Your task to perform on an android device: Open Google Maps Image 0: 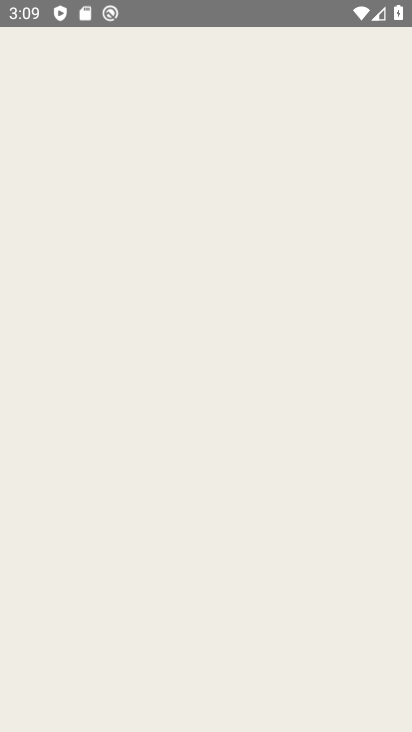
Step 0: press home button
Your task to perform on an android device: Open Google Maps Image 1: 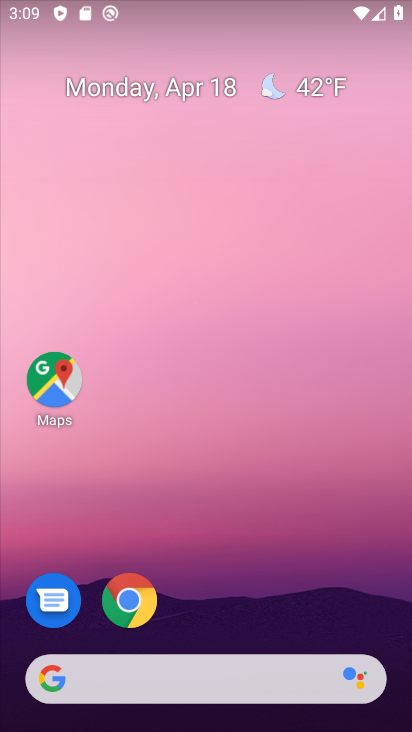
Step 1: drag from (176, 679) to (354, 29)
Your task to perform on an android device: Open Google Maps Image 2: 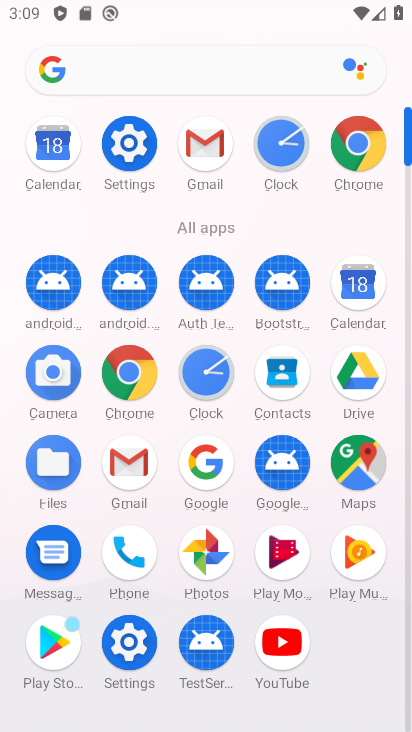
Step 2: click (364, 463)
Your task to perform on an android device: Open Google Maps Image 3: 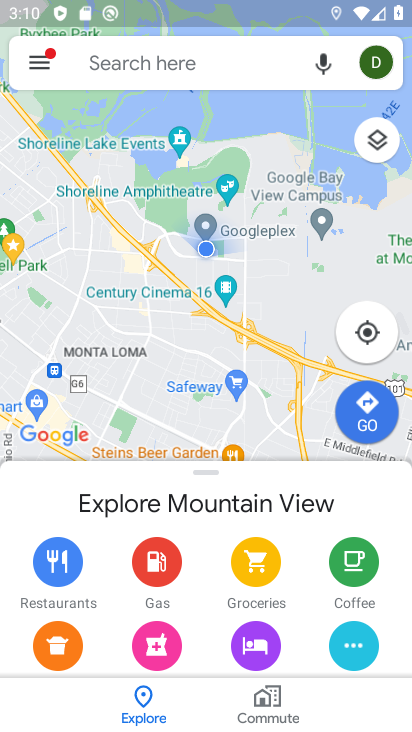
Step 3: task complete